Your task to perform on an android device: turn off smart reply in the gmail app Image 0: 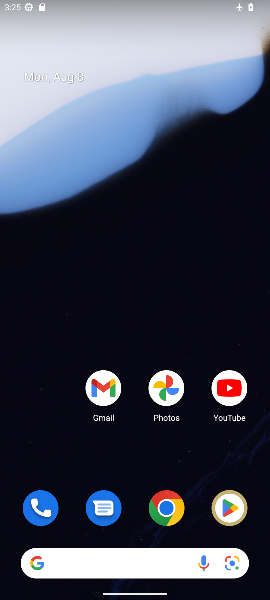
Step 0: click (106, 395)
Your task to perform on an android device: turn off smart reply in the gmail app Image 1: 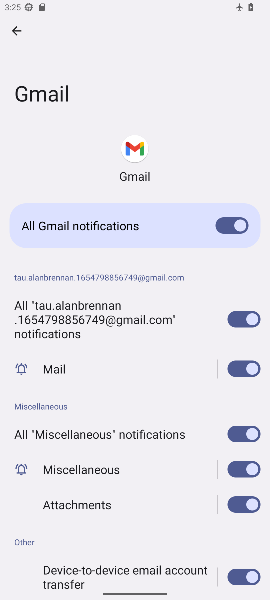
Step 1: click (15, 27)
Your task to perform on an android device: turn off smart reply in the gmail app Image 2: 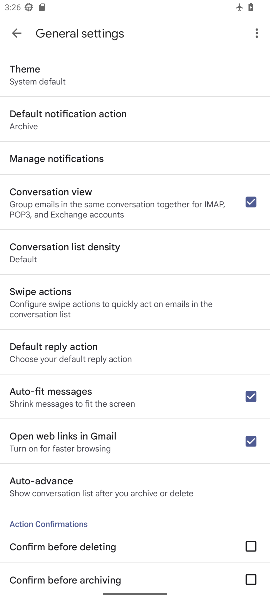
Step 2: drag from (172, 517) to (168, 191)
Your task to perform on an android device: turn off smart reply in the gmail app Image 3: 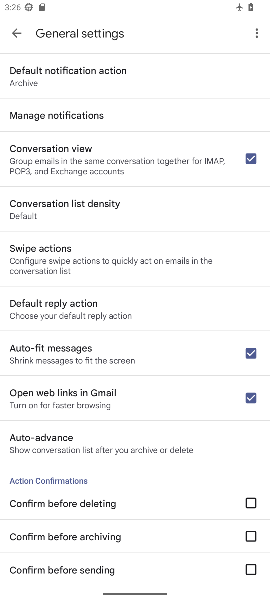
Step 3: click (12, 33)
Your task to perform on an android device: turn off smart reply in the gmail app Image 4: 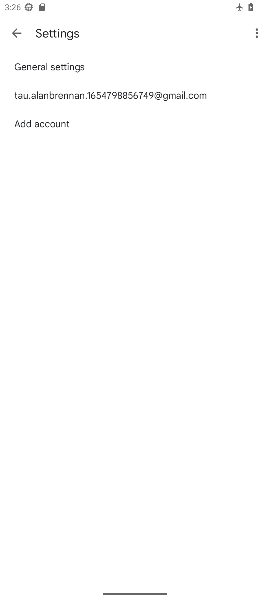
Step 4: click (51, 92)
Your task to perform on an android device: turn off smart reply in the gmail app Image 5: 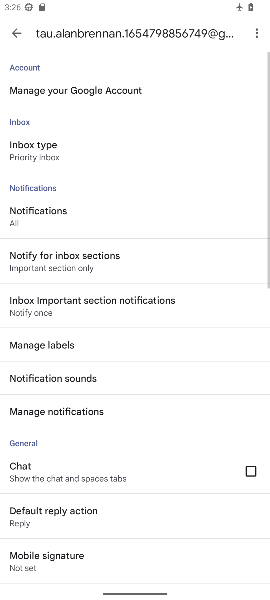
Step 5: drag from (157, 515) to (174, 242)
Your task to perform on an android device: turn off smart reply in the gmail app Image 6: 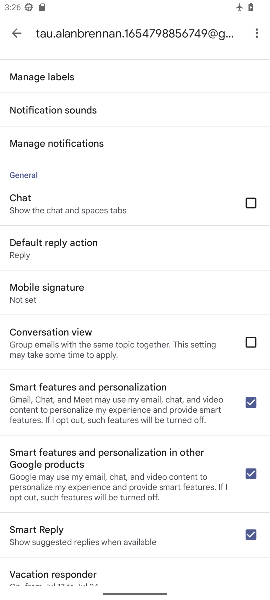
Step 6: click (247, 538)
Your task to perform on an android device: turn off smart reply in the gmail app Image 7: 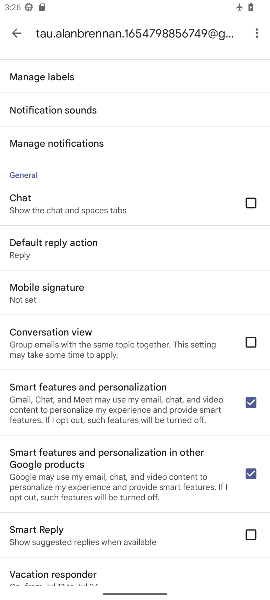
Step 7: task complete